Your task to perform on an android device: Open the Play Movies app and select the watchlist tab. Image 0: 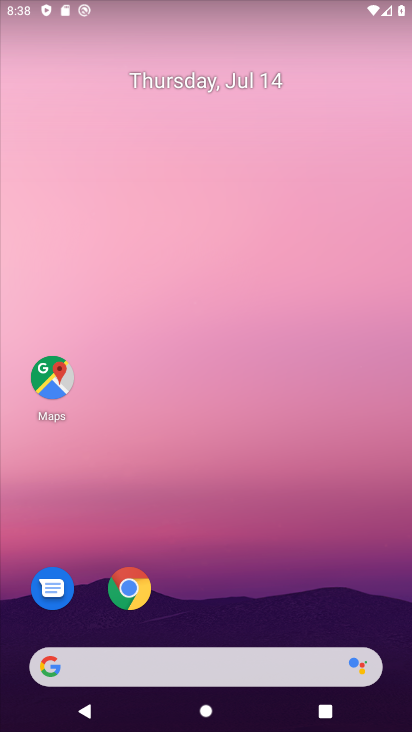
Step 0: drag from (220, 607) to (309, 70)
Your task to perform on an android device: Open the Play Movies app and select the watchlist tab. Image 1: 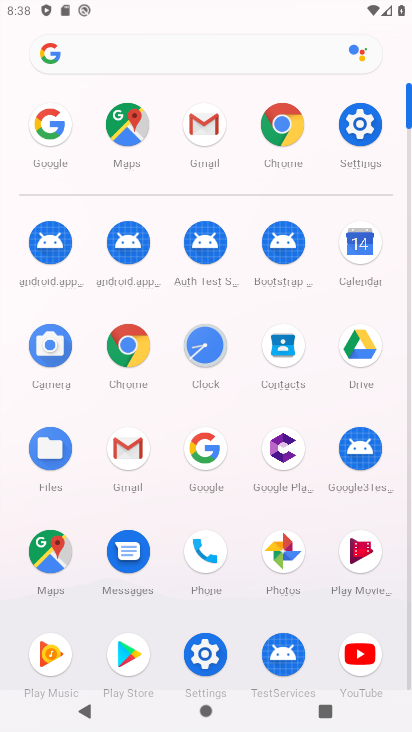
Step 1: drag from (277, 628) to (276, 262)
Your task to perform on an android device: Open the Play Movies app and select the watchlist tab. Image 2: 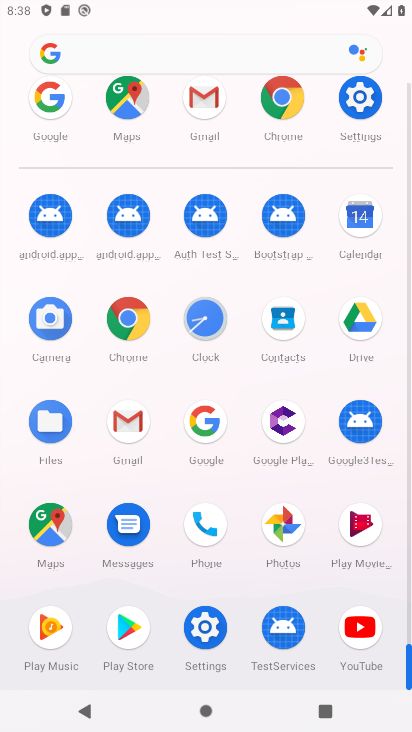
Step 2: click (367, 521)
Your task to perform on an android device: Open the Play Movies app and select the watchlist tab. Image 3: 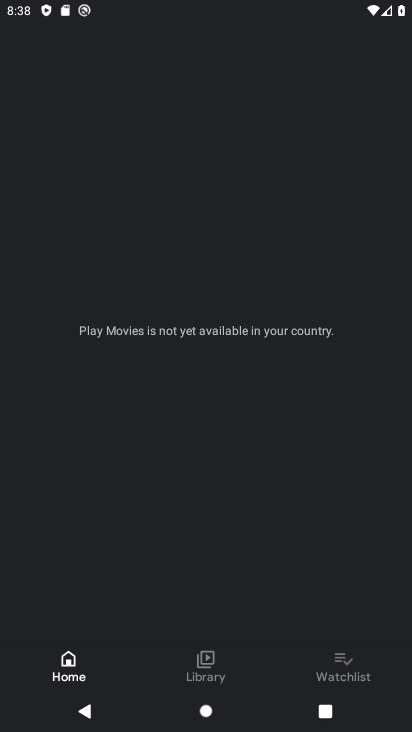
Step 3: click (341, 656)
Your task to perform on an android device: Open the Play Movies app and select the watchlist tab. Image 4: 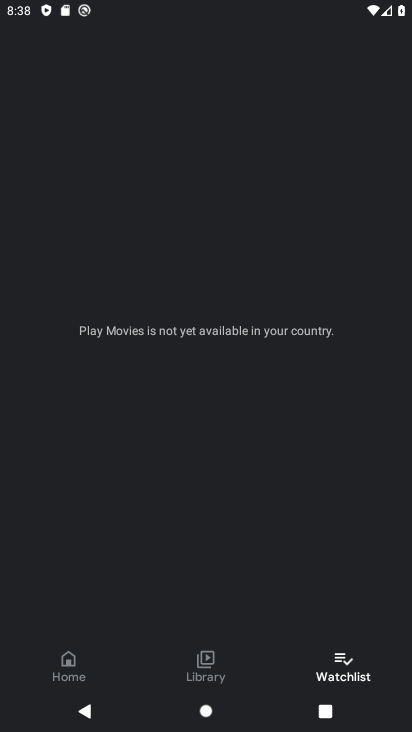
Step 4: task complete